Your task to perform on an android device: Is it going to rain tomorrow? Image 0: 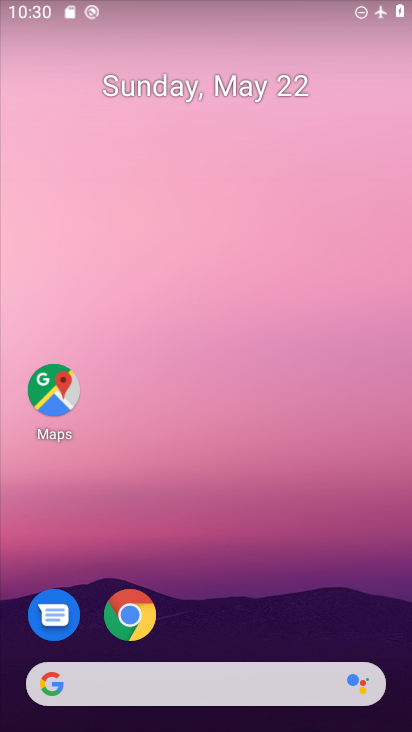
Step 0: drag from (242, 650) to (219, 111)
Your task to perform on an android device: Is it going to rain tomorrow? Image 1: 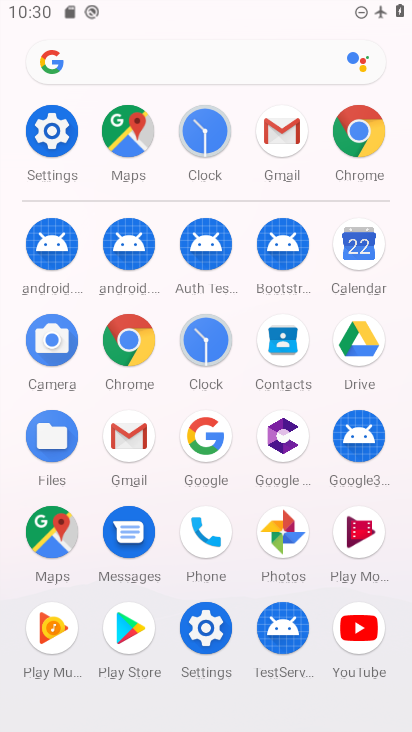
Step 1: click (356, 135)
Your task to perform on an android device: Is it going to rain tomorrow? Image 2: 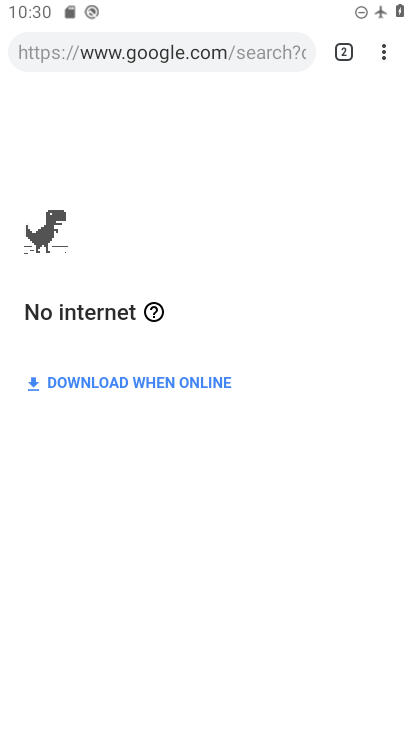
Step 2: click (162, 61)
Your task to perform on an android device: Is it going to rain tomorrow? Image 3: 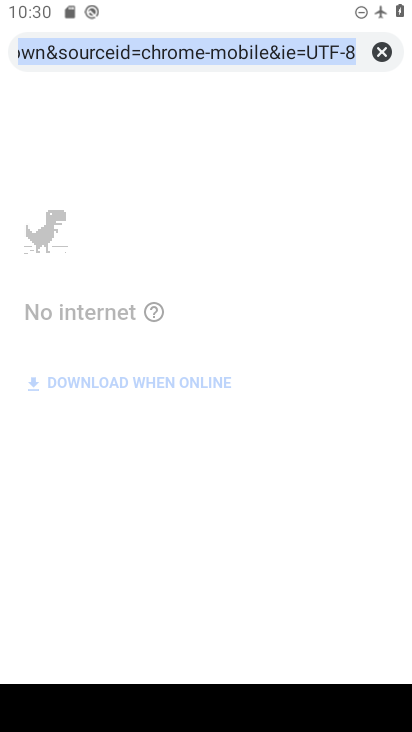
Step 3: type "weather"
Your task to perform on an android device: Is it going to rain tomorrow? Image 4: 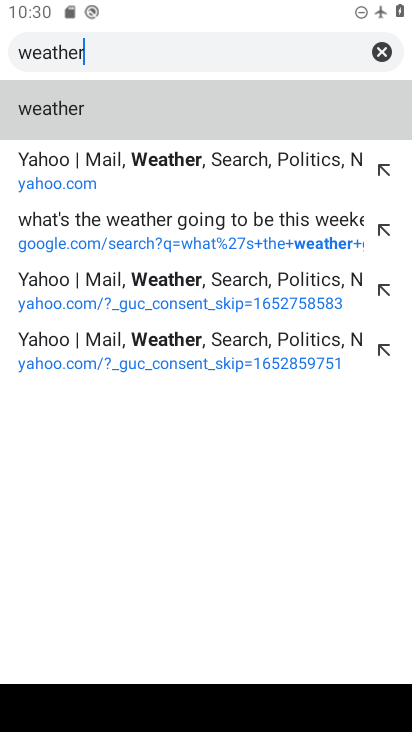
Step 4: click (35, 113)
Your task to perform on an android device: Is it going to rain tomorrow? Image 5: 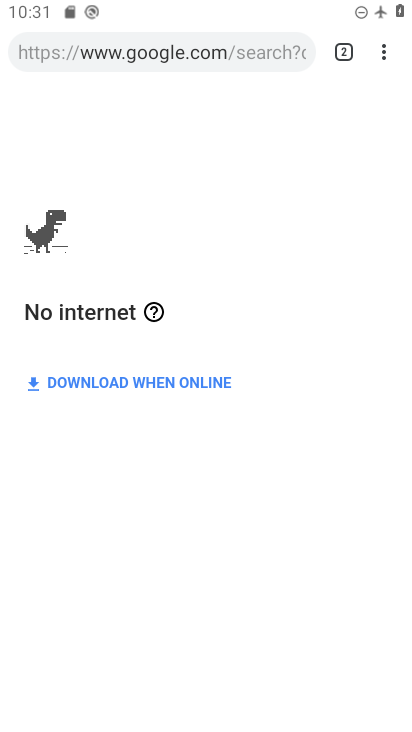
Step 5: task complete